Your task to perform on an android device: toggle wifi Image 0: 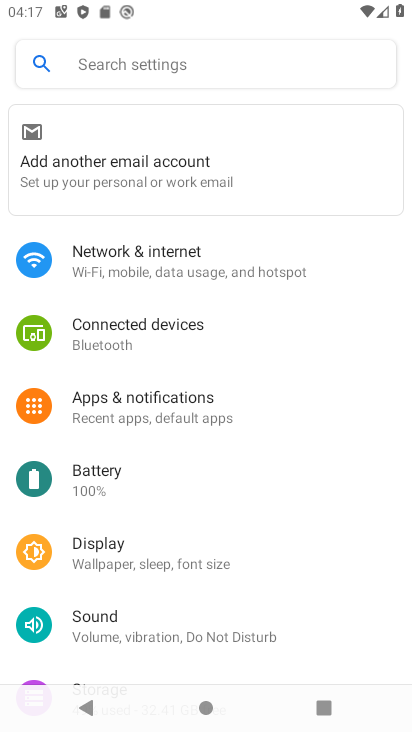
Step 0: click (279, 265)
Your task to perform on an android device: toggle wifi Image 1: 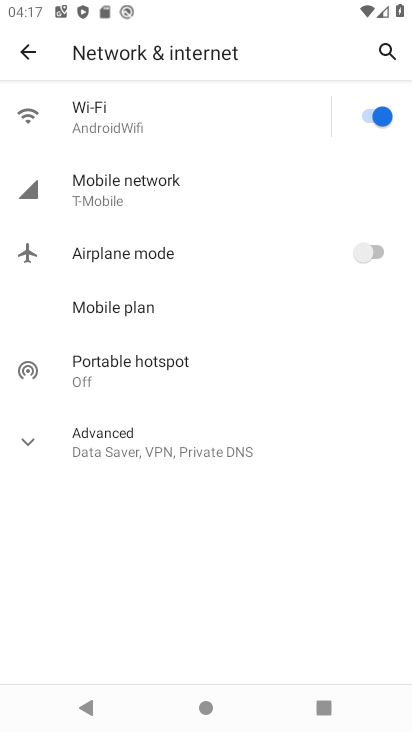
Step 1: click (364, 116)
Your task to perform on an android device: toggle wifi Image 2: 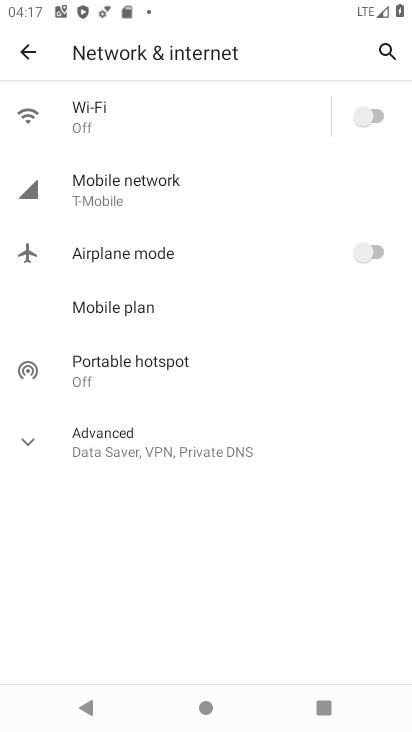
Step 2: task complete